Your task to perform on an android device: Search for pizza restaurants on Maps Image 0: 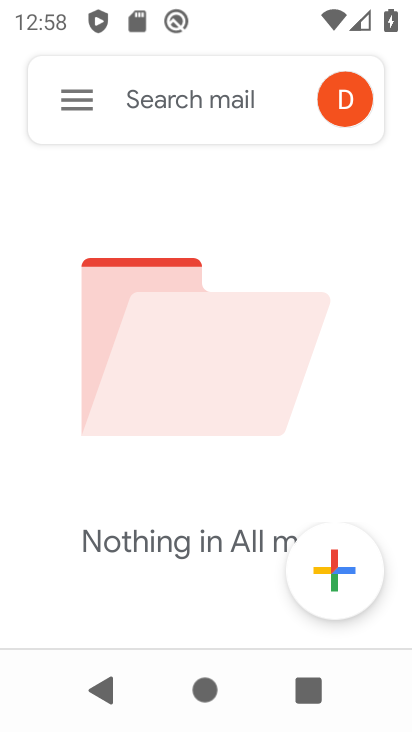
Step 0: press home button
Your task to perform on an android device: Search for pizza restaurants on Maps Image 1: 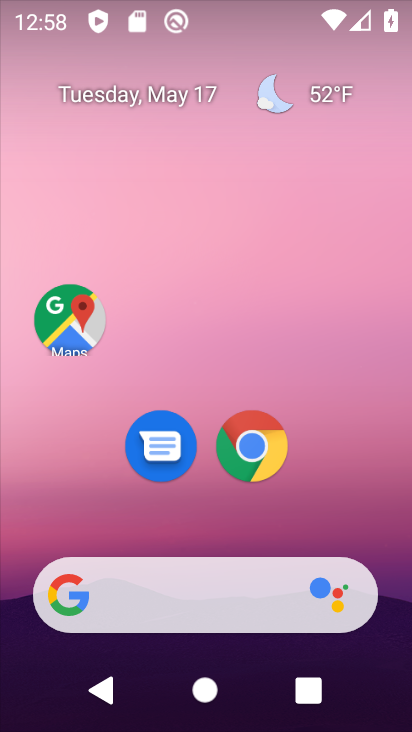
Step 1: click (75, 319)
Your task to perform on an android device: Search for pizza restaurants on Maps Image 2: 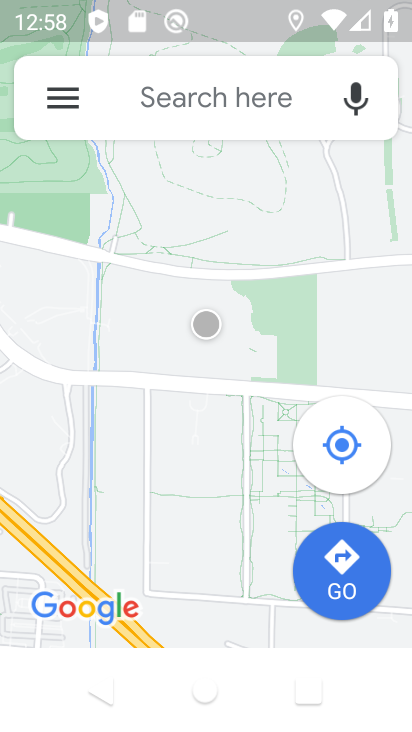
Step 2: click (255, 85)
Your task to perform on an android device: Search for pizza restaurants on Maps Image 3: 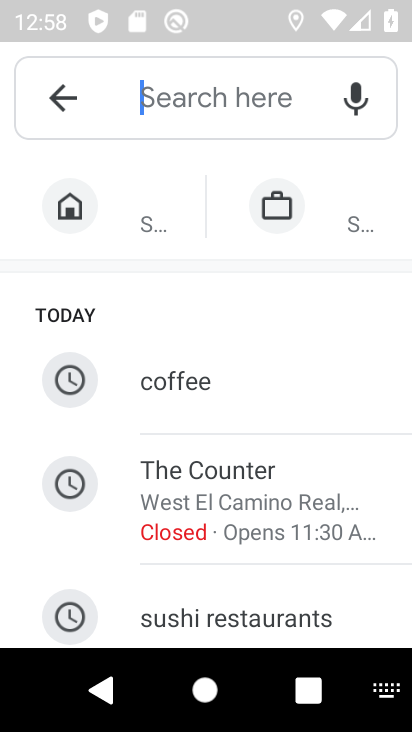
Step 3: type "pizza restaurants"
Your task to perform on an android device: Search for pizza restaurants on Maps Image 4: 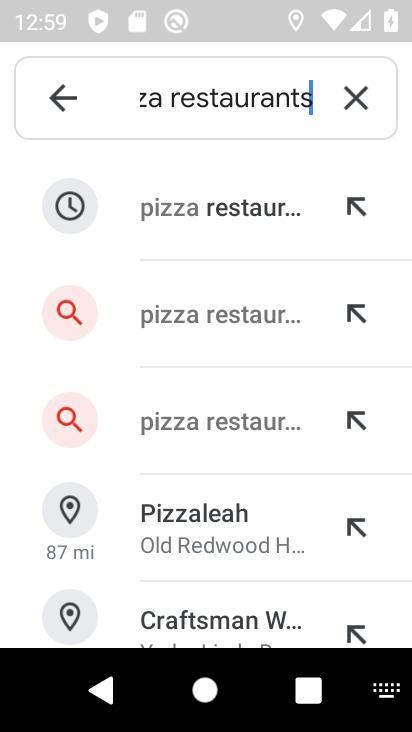
Step 4: click (238, 219)
Your task to perform on an android device: Search for pizza restaurants on Maps Image 5: 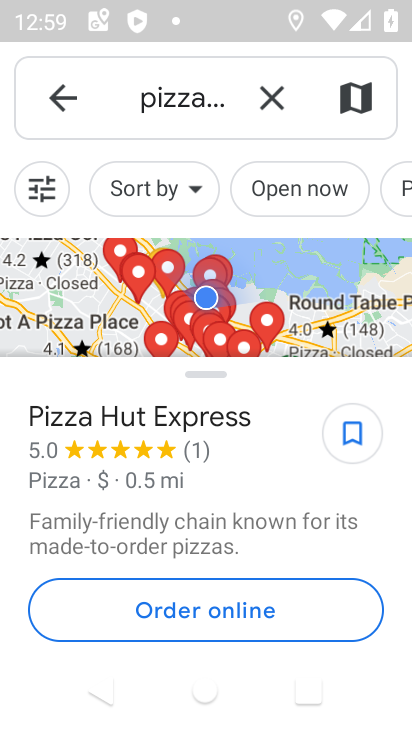
Step 5: task complete